Your task to perform on an android device: find snoozed emails in the gmail app Image 0: 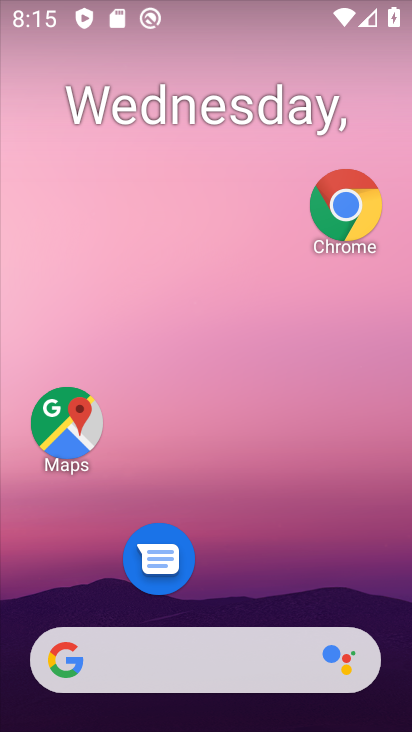
Step 0: drag from (235, 615) to (278, 295)
Your task to perform on an android device: find snoozed emails in the gmail app Image 1: 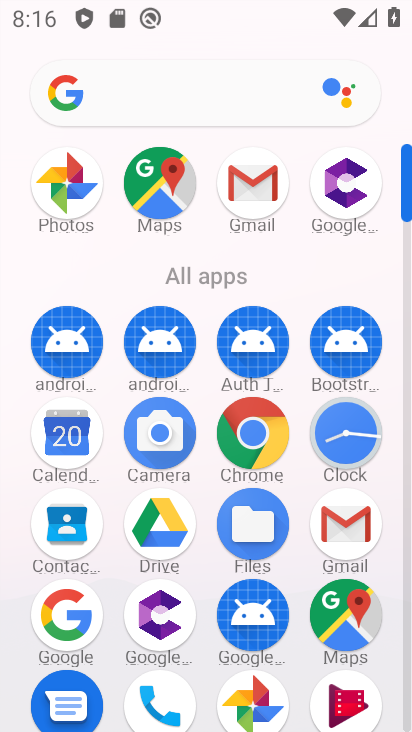
Step 1: click (342, 533)
Your task to perform on an android device: find snoozed emails in the gmail app Image 2: 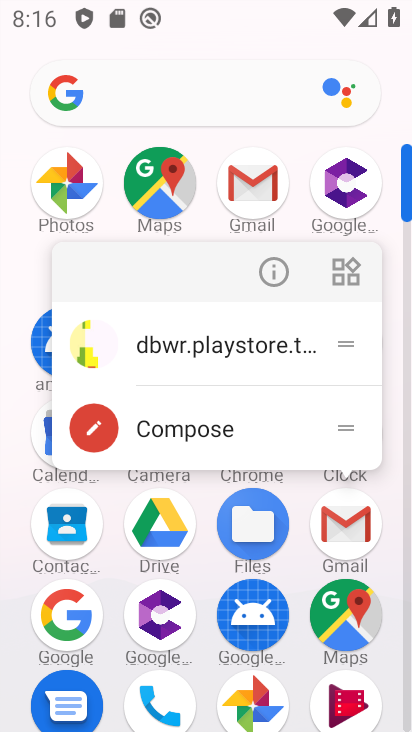
Step 2: click (272, 285)
Your task to perform on an android device: find snoozed emails in the gmail app Image 3: 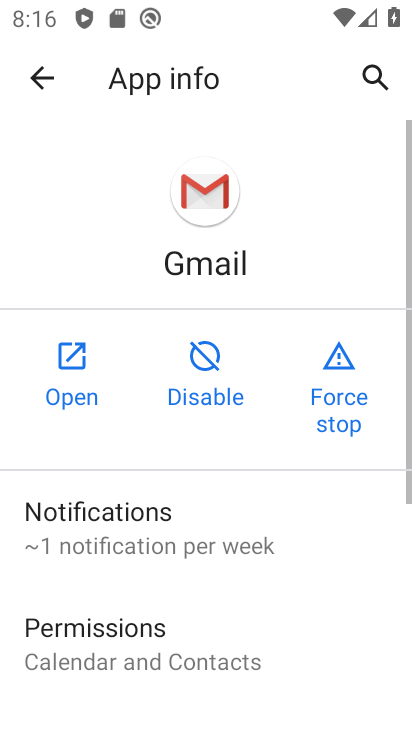
Step 3: click (78, 356)
Your task to perform on an android device: find snoozed emails in the gmail app Image 4: 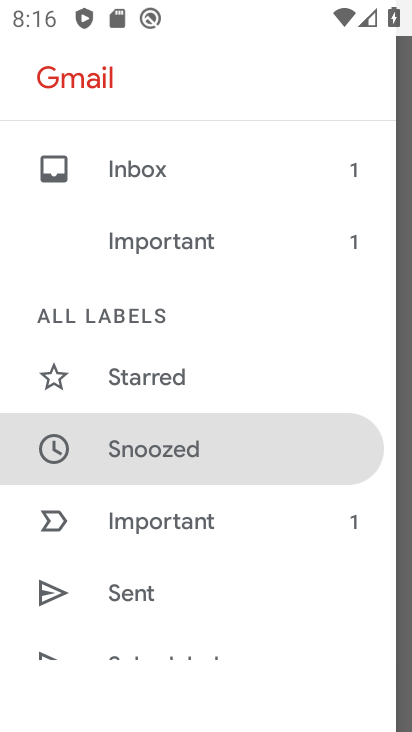
Step 4: task complete